Your task to perform on an android device: add a label to a message in the gmail app Image 0: 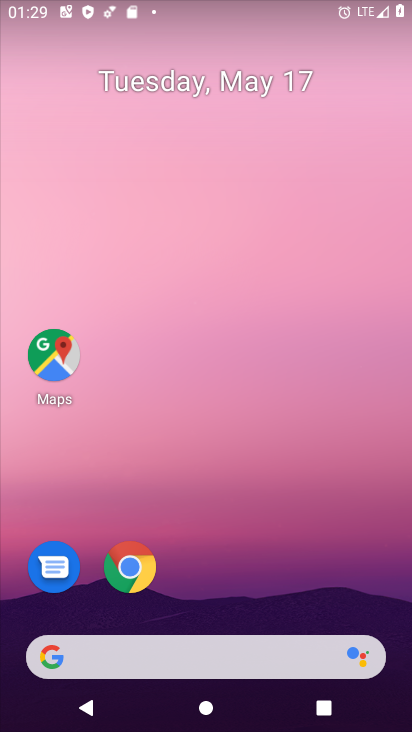
Step 0: drag from (205, 550) to (177, 131)
Your task to perform on an android device: add a label to a message in the gmail app Image 1: 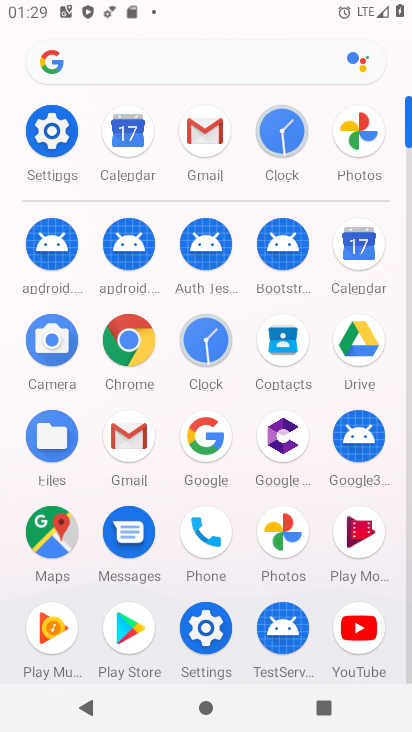
Step 1: click (203, 129)
Your task to perform on an android device: add a label to a message in the gmail app Image 2: 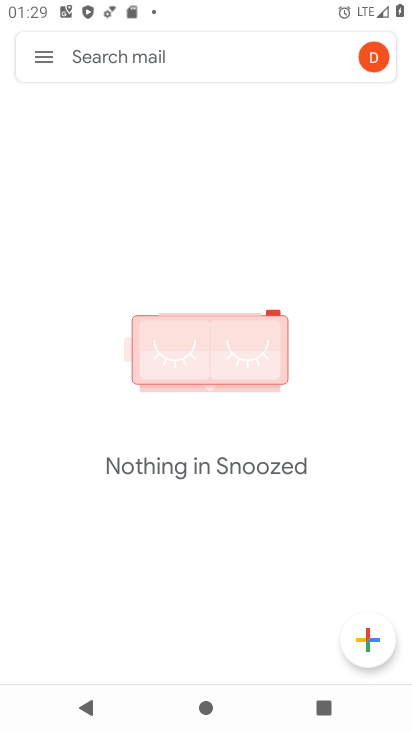
Step 2: click (42, 56)
Your task to perform on an android device: add a label to a message in the gmail app Image 3: 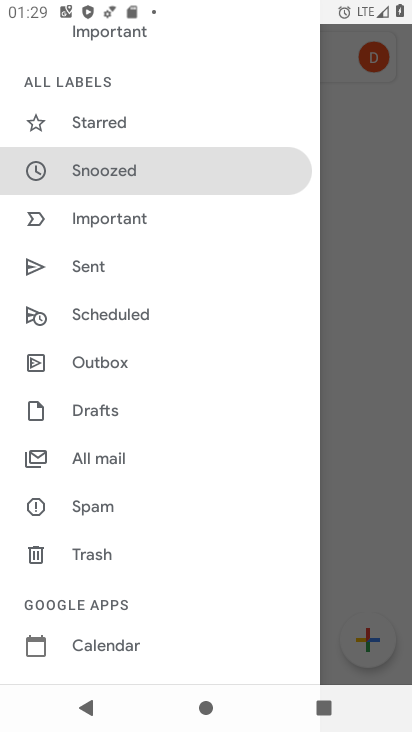
Step 3: click (95, 457)
Your task to perform on an android device: add a label to a message in the gmail app Image 4: 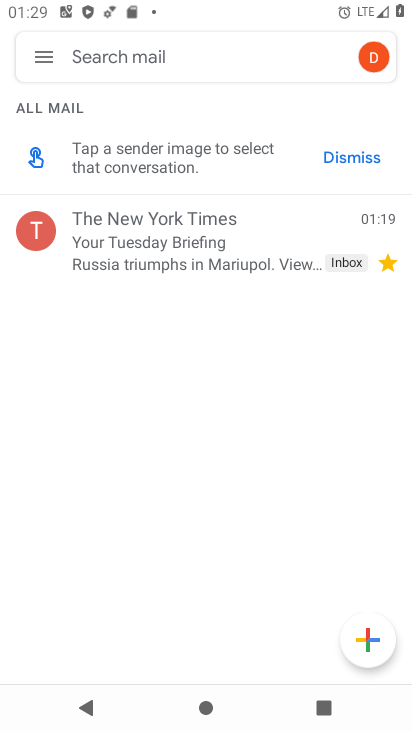
Step 4: task complete